Your task to perform on an android device: change notification settings in the gmail app Image 0: 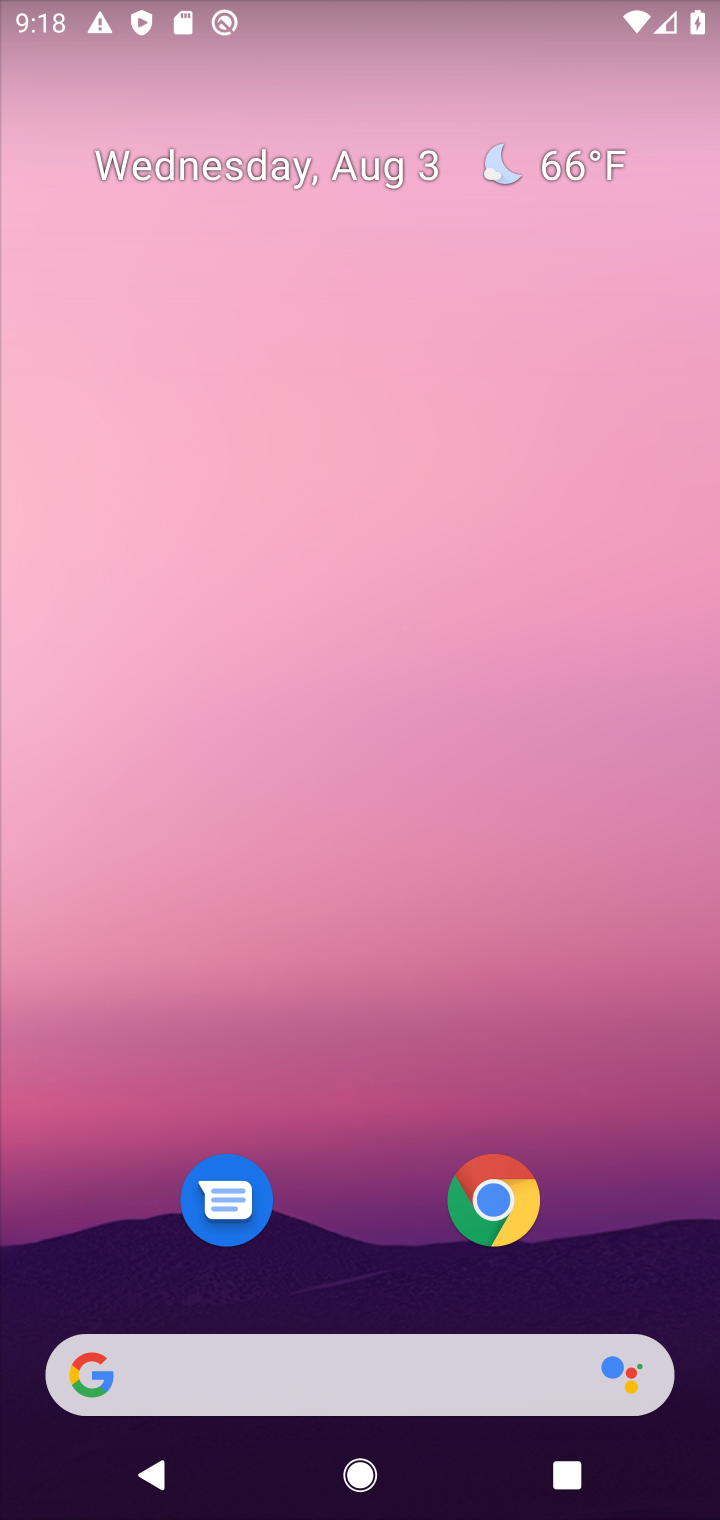
Step 0: drag from (313, 1354) to (295, 148)
Your task to perform on an android device: change notification settings in the gmail app Image 1: 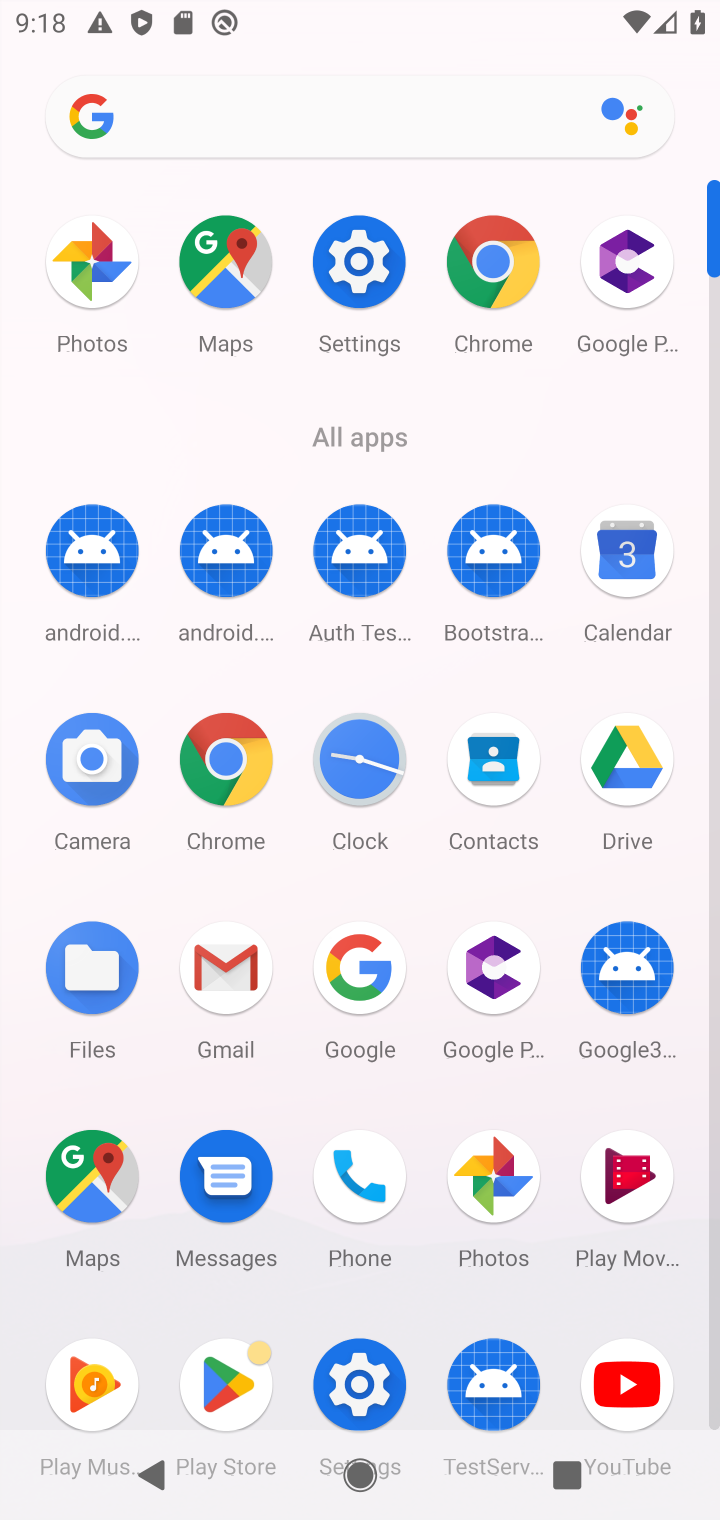
Step 1: click (242, 971)
Your task to perform on an android device: change notification settings in the gmail app Image 2: 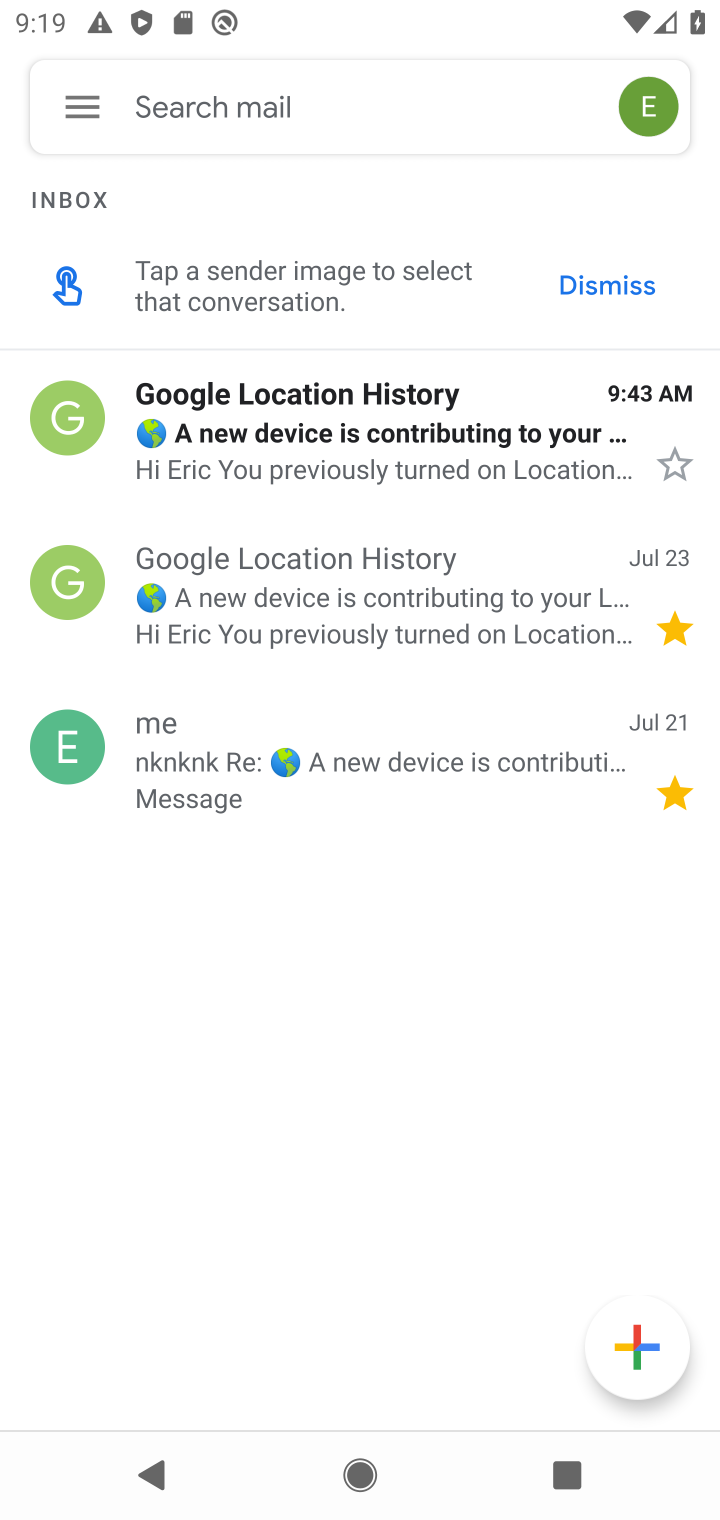
Step 2: click (88, 83)
Your task to perform on an android device: change notification settings in the gmail app Image 3: 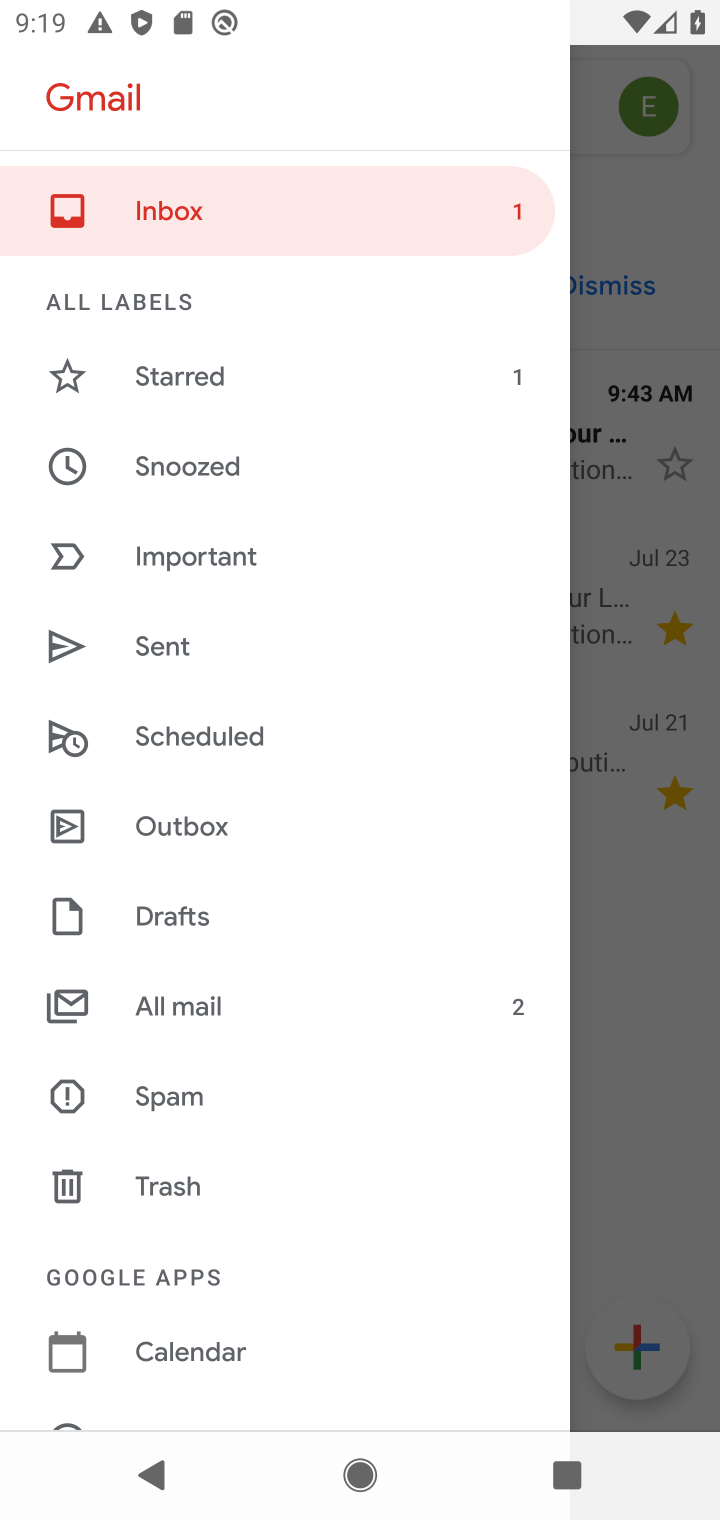
Step 3: drag from (406, 1275) to (423, 663)
Your task to perform on an android device: change notification settings in the gmail app Image 4: 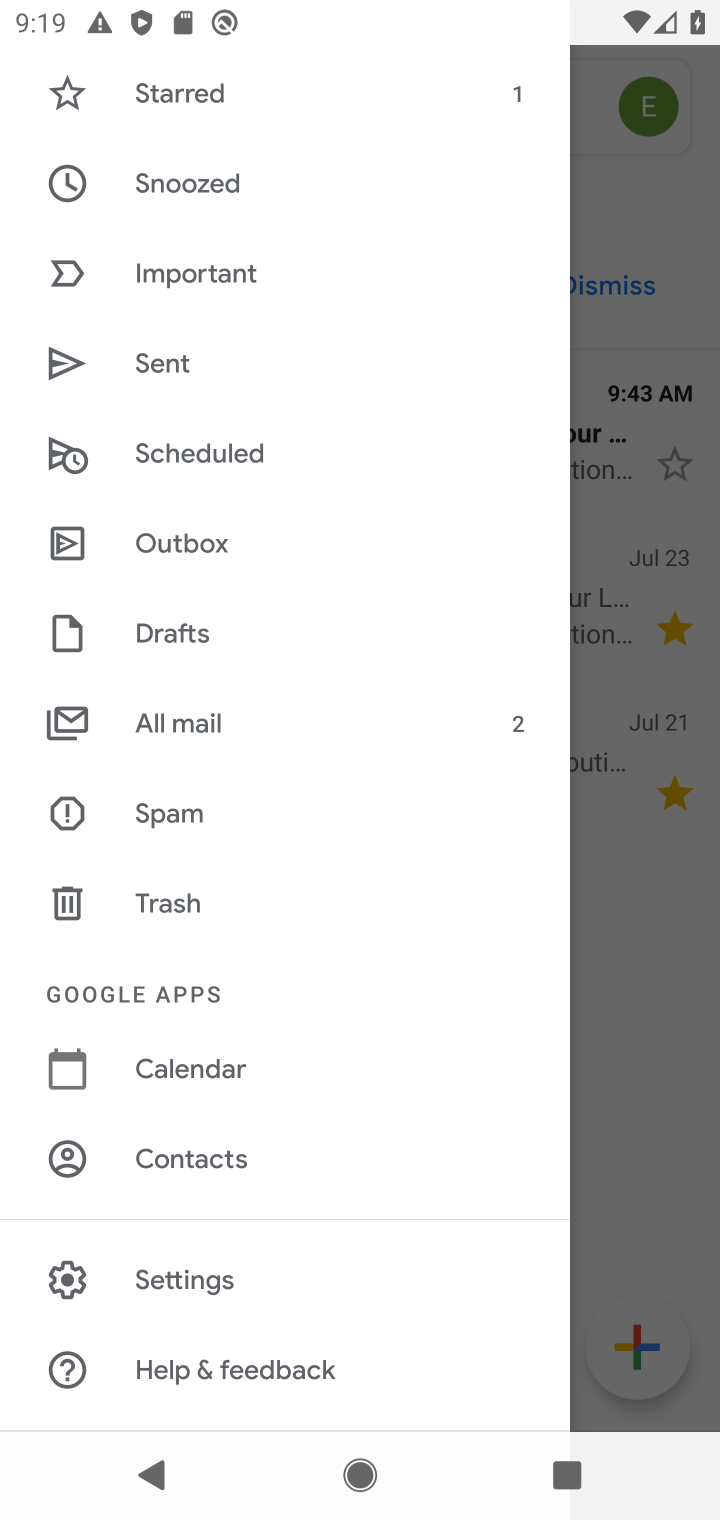
Step 4: click (218, 1268)
Your task to perform on an android device: change notification settings in the gmail app Image 5: 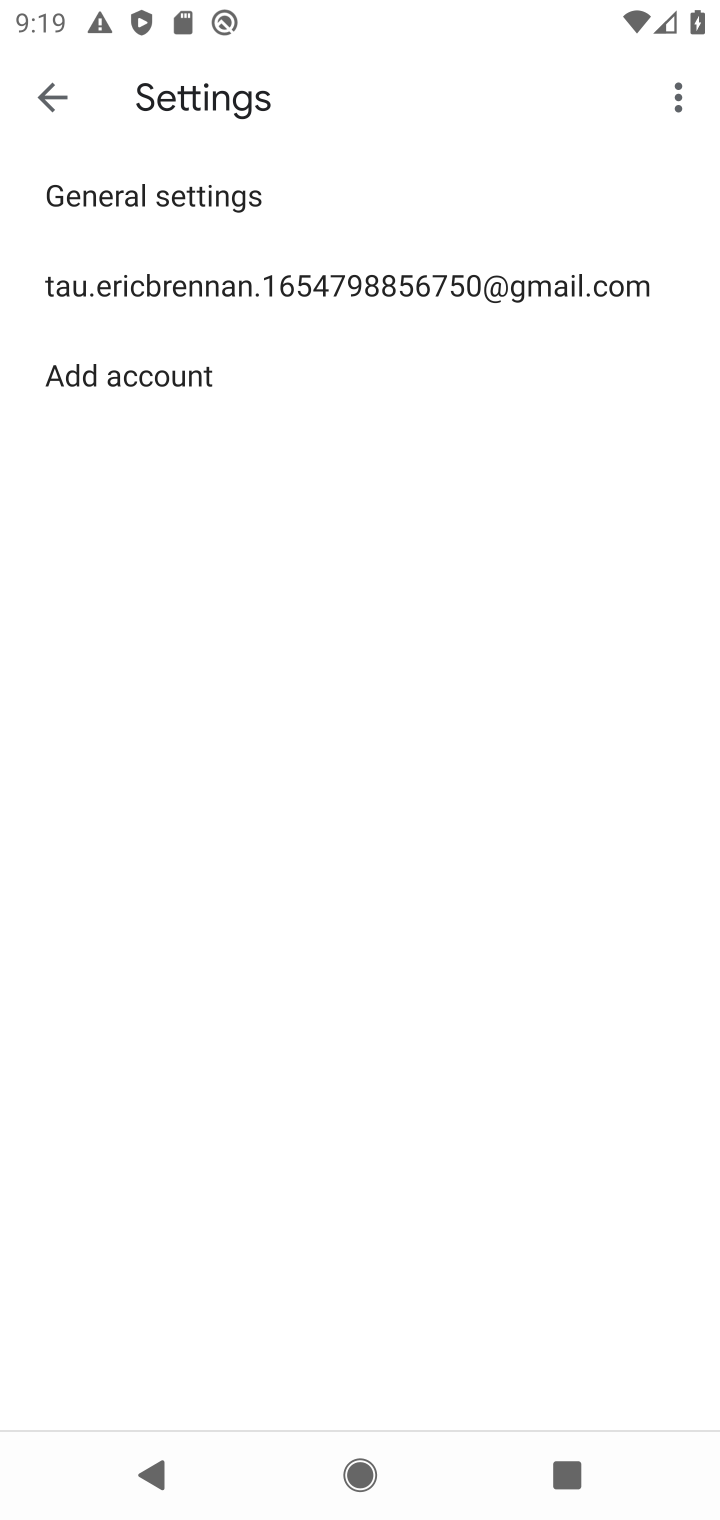
Step 5: click (293, 281)
Your task to perform on an android device: change notification settings in the gmail app Image 6: 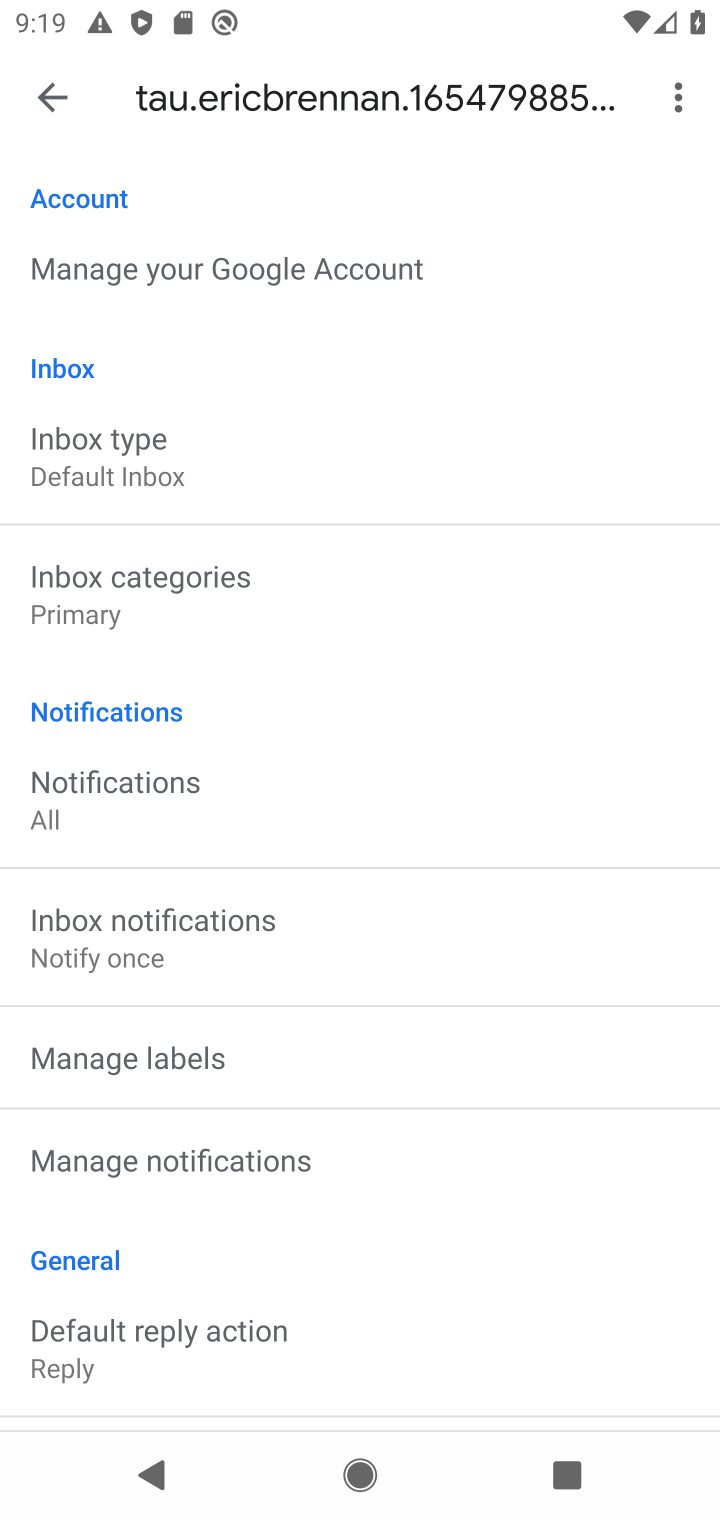
Step 6: click (93, 1149)
Your task to perform on an android device: change notification settings in the gmail app Image 7: 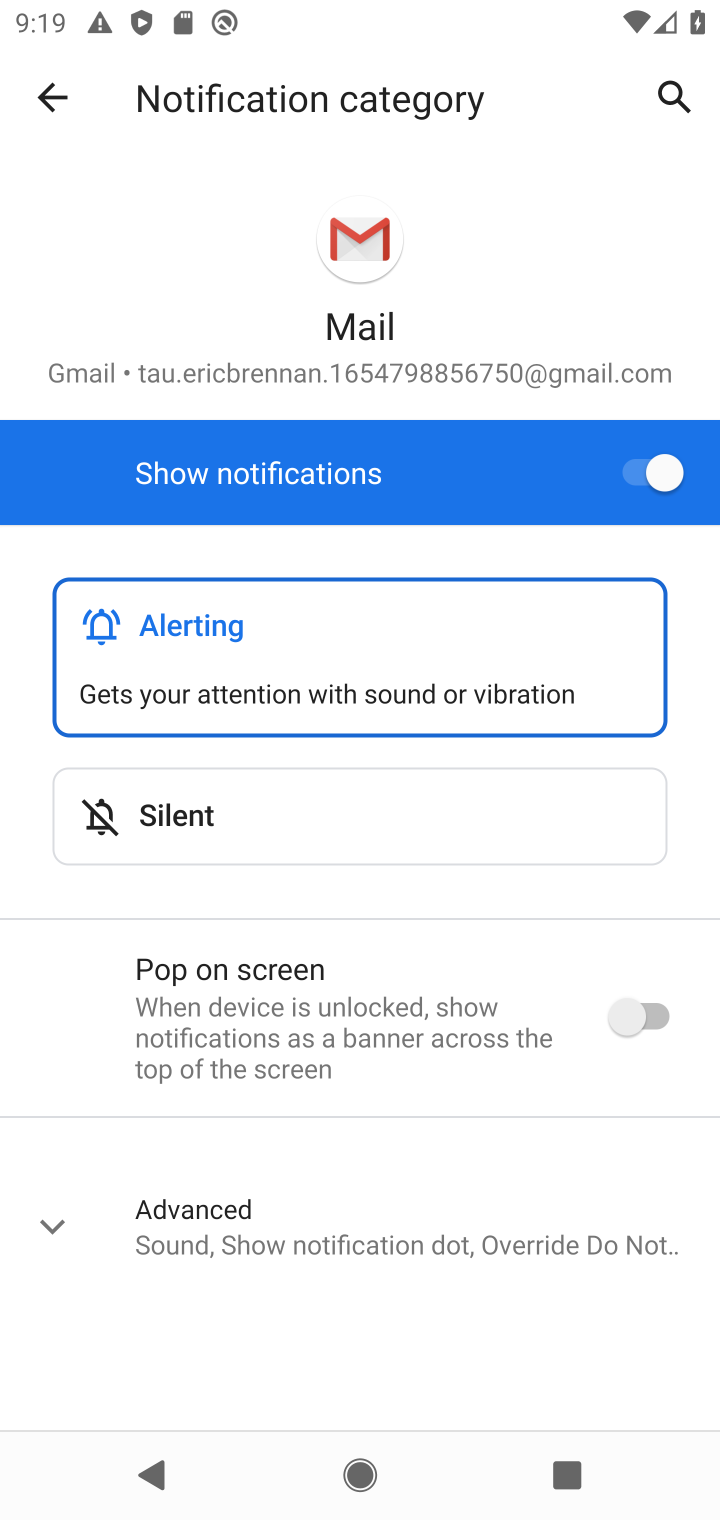
Step 7: click (646, 467)
Your task to perform on an android device: change notification settings in the gmail app Image 8: 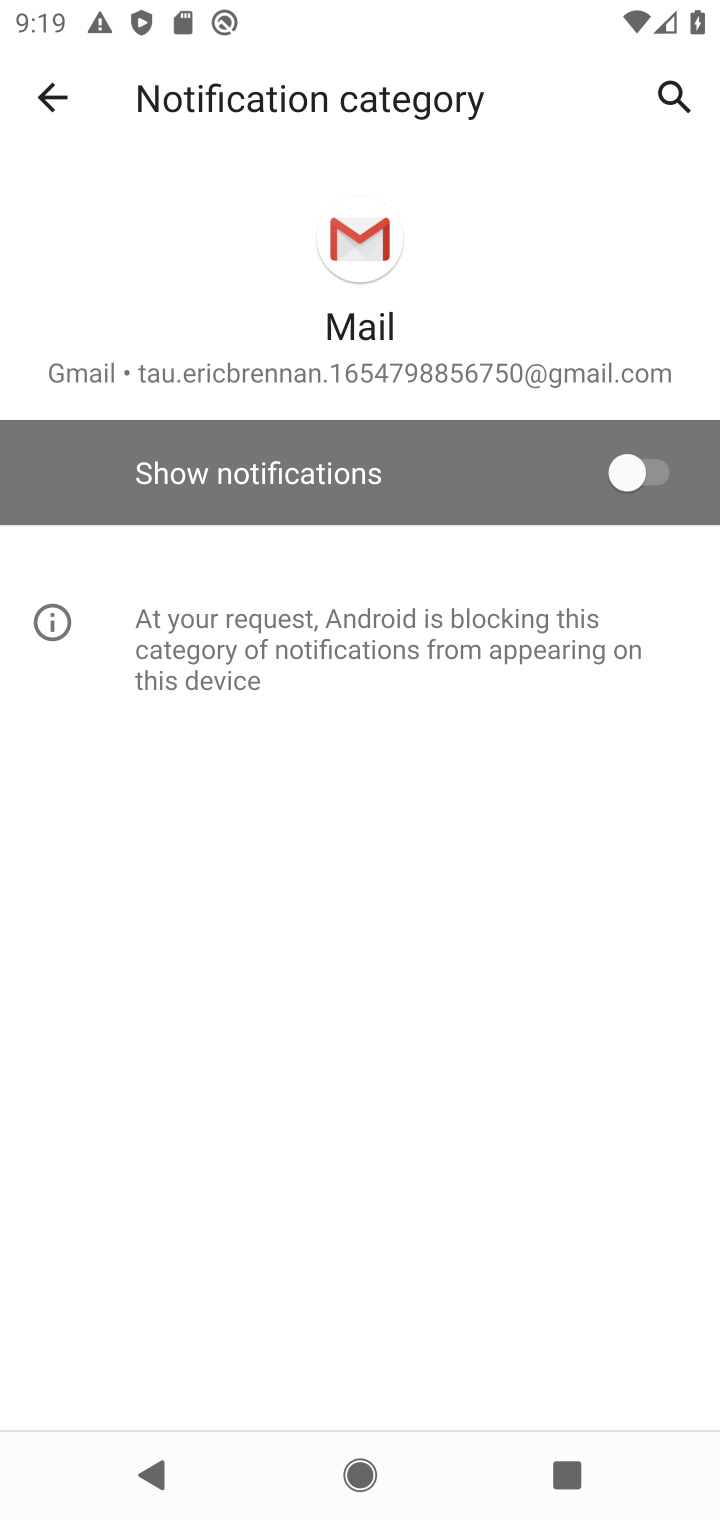
Step 8: task complete